Your task to perform on an android device: Go to location settings Image 0: 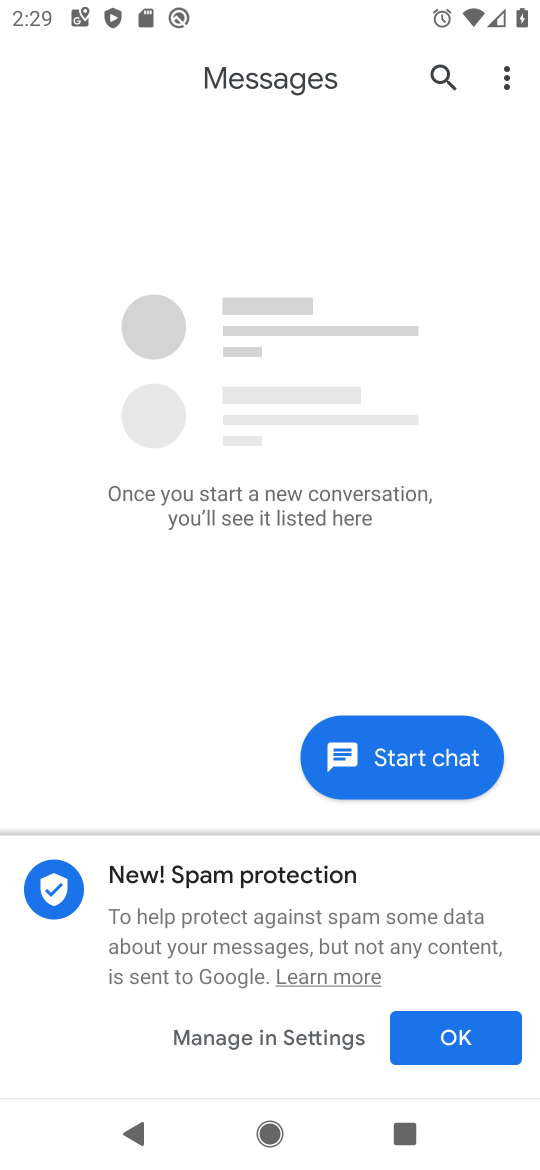
Step 0: press home button
Your task to perform on an android device: Go to location settings Image 1: 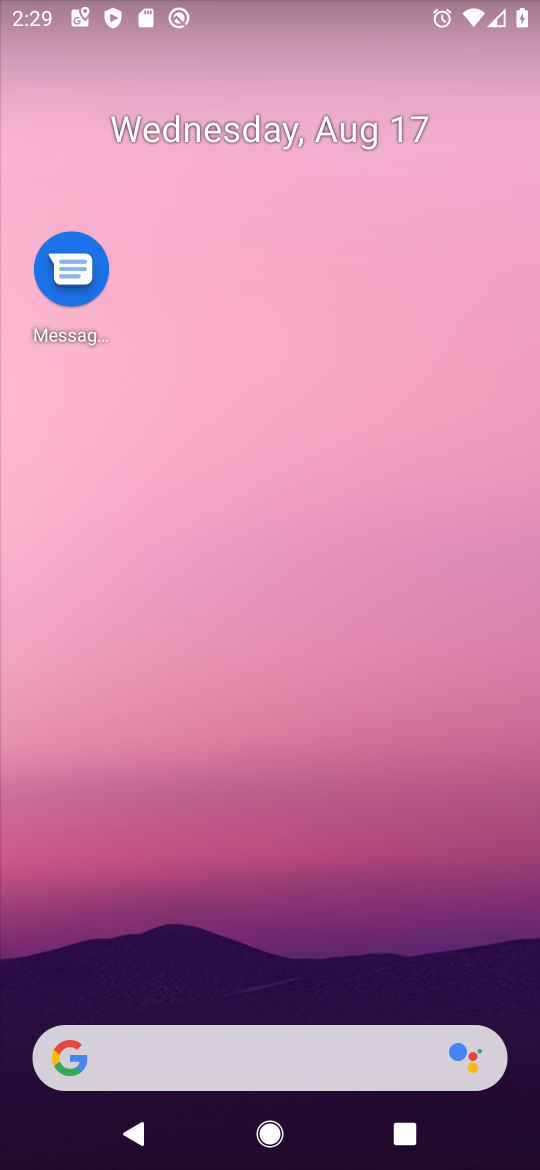
Step 1: drag from (278, 735) to (197, 44)
Your task to perform on an android device: Go to location settings Image 2: 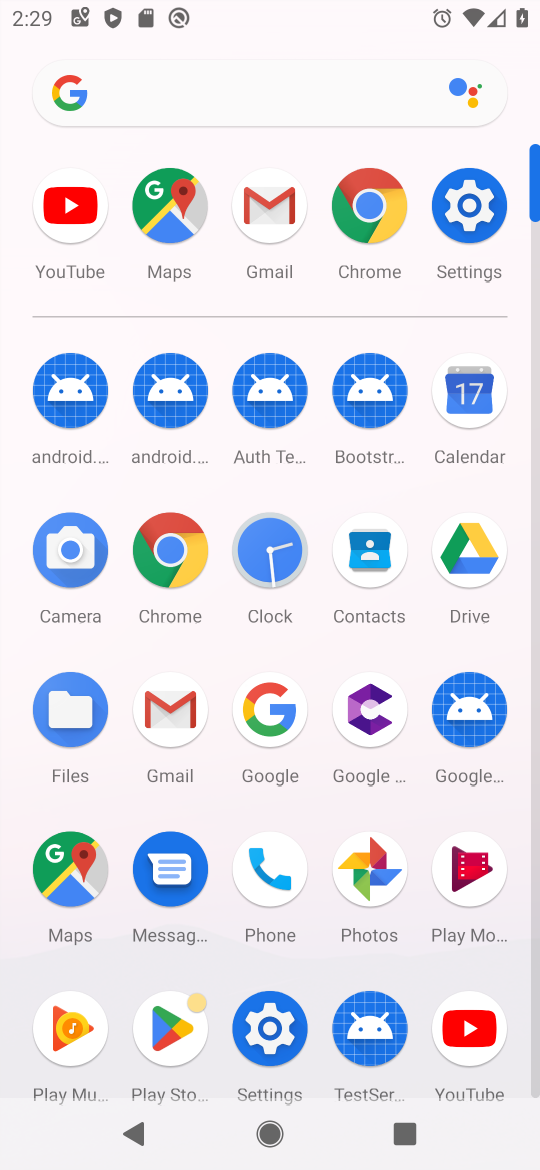
Step 2: click (488, 235)
Your task to perform on an android device: Go to location settings Image 3: 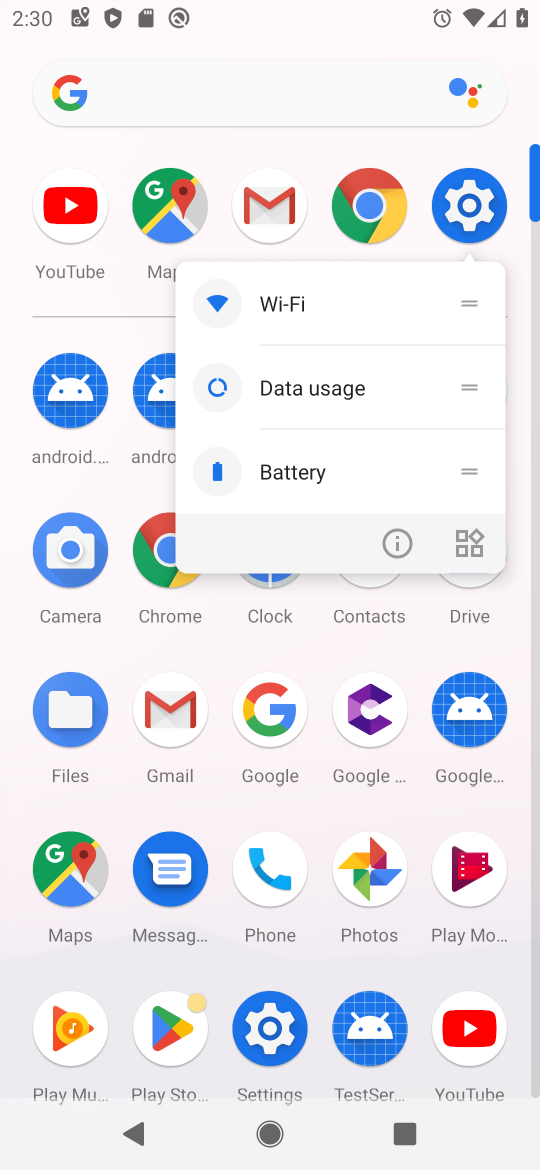
Step 3: click (450, 204)
Your task to perform on an android device: Go to location settings Image 4: 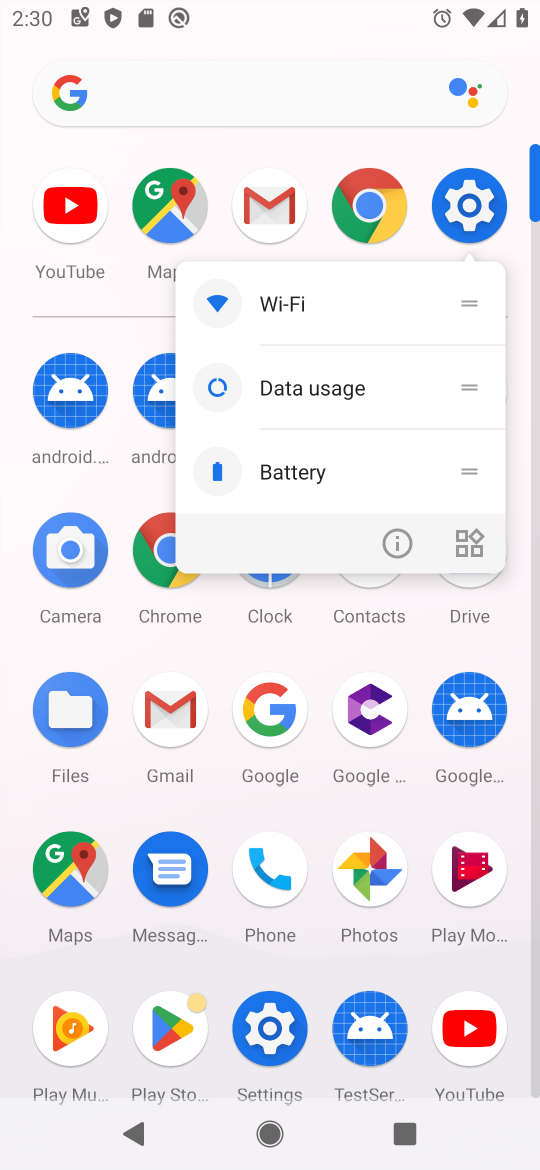
Step 4: click (464, 200)
Your task to perform on an android device: Go to location settings Image 5: 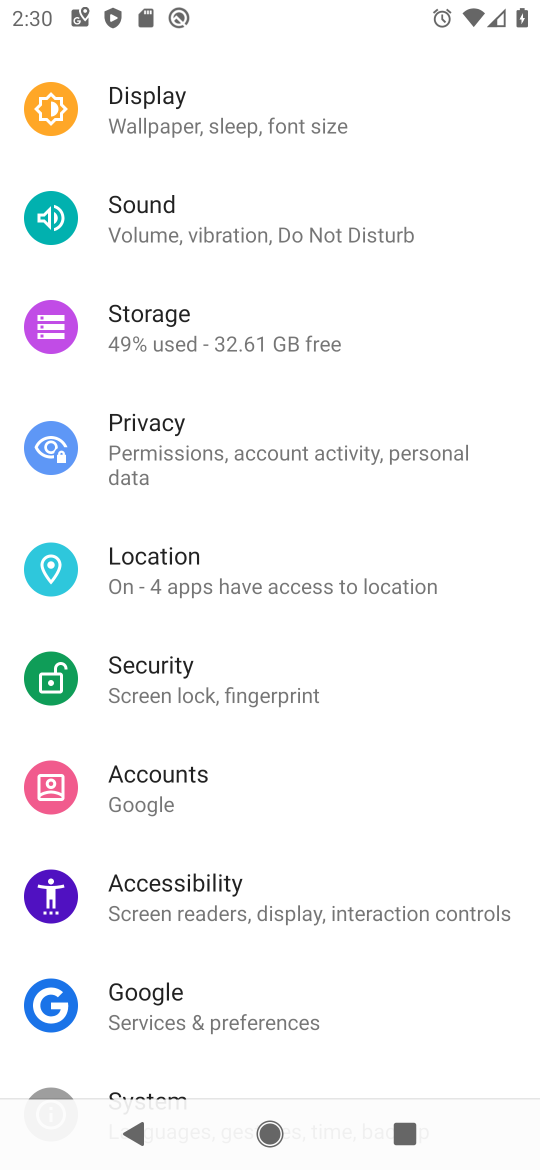
Step 5: click (121, 574)
Your task to perform on an android device: Go to location settings Image 6: 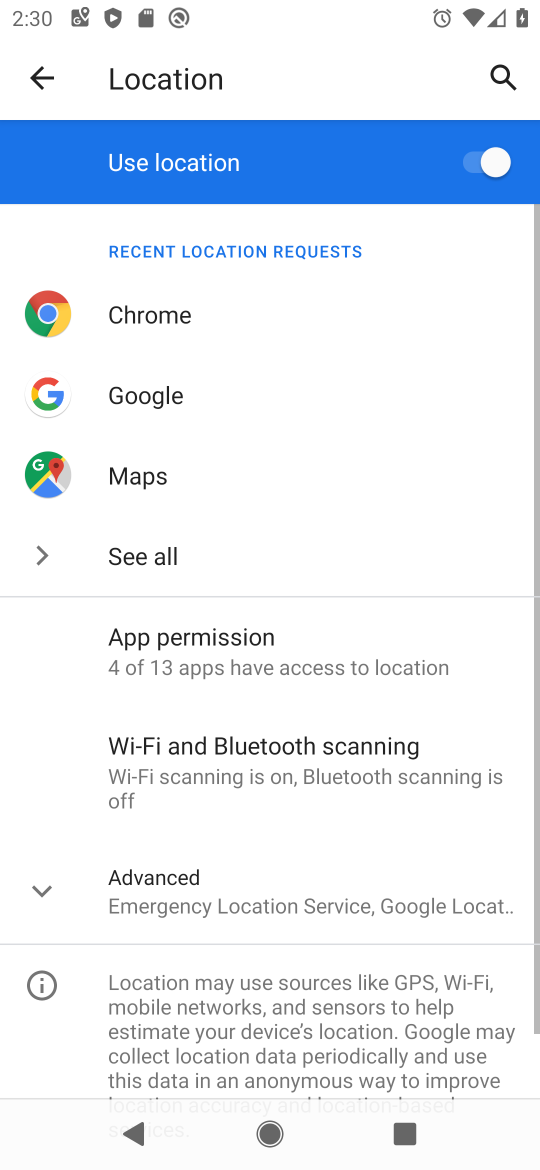
Step 6: task complete